Your task to perform on an android device: check storage Image 0: 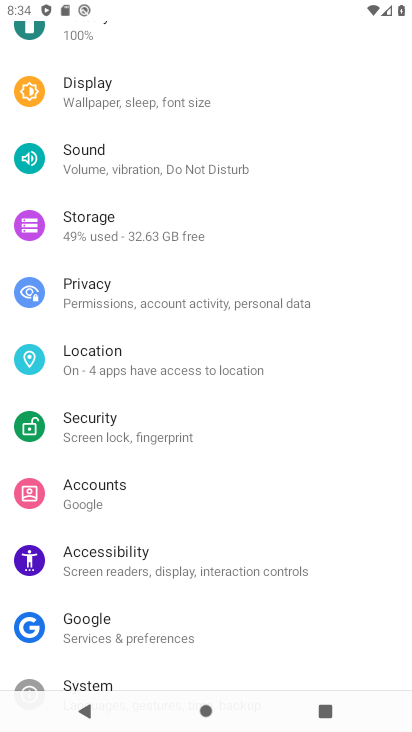
Step 0: click (70, 231)
Your task to perform on an android device: check storage Image 1: 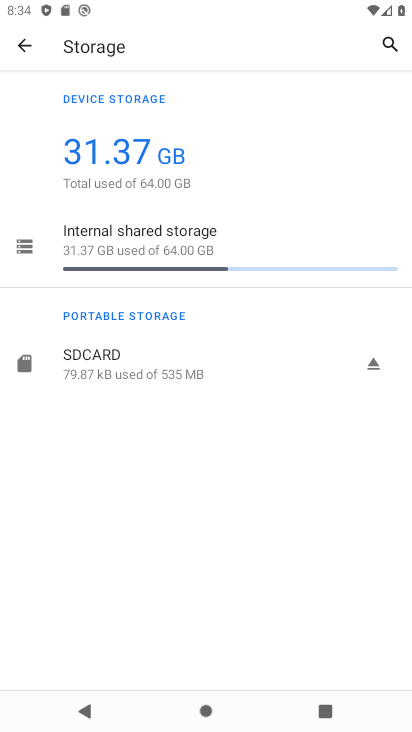
Step 1: task complete